Your task to perform on an android device: change keyboard looks Image 0: 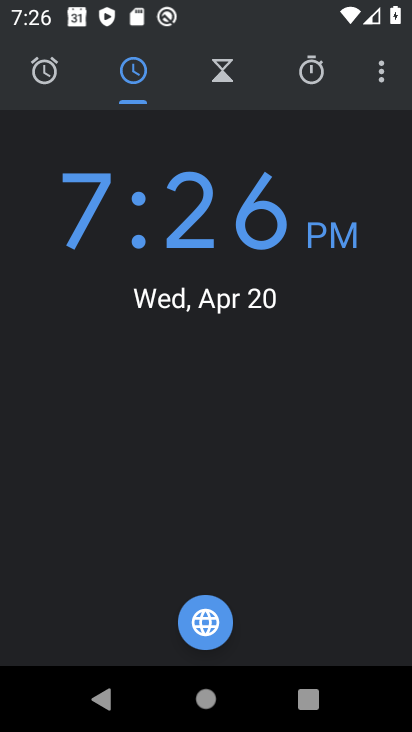
Step 0: press back button
Your task to perform on an android device: change keyboard looks Image 1: 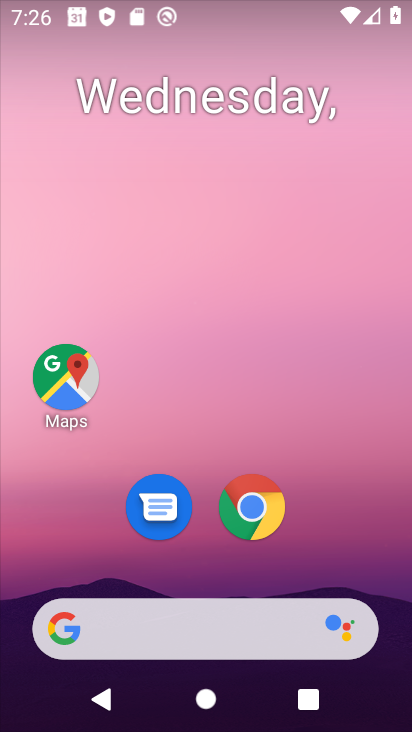
Step 1: drag from (305, 642) to (232, 189)
Your task to perform on an android device: change keyboard looks Image 2: 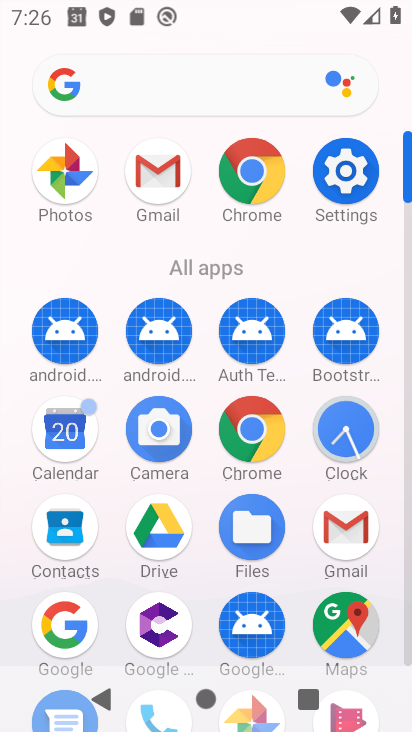
Step 2: click (346, 152)
Your task to perform on an android device: change keyboard looks Image 3: 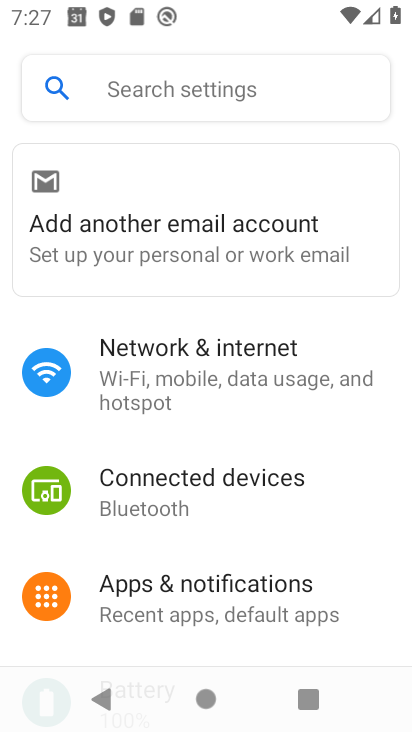
Step 3: click (131, 84)
Your task to perform on an android device: change keyboard looks Image 4: 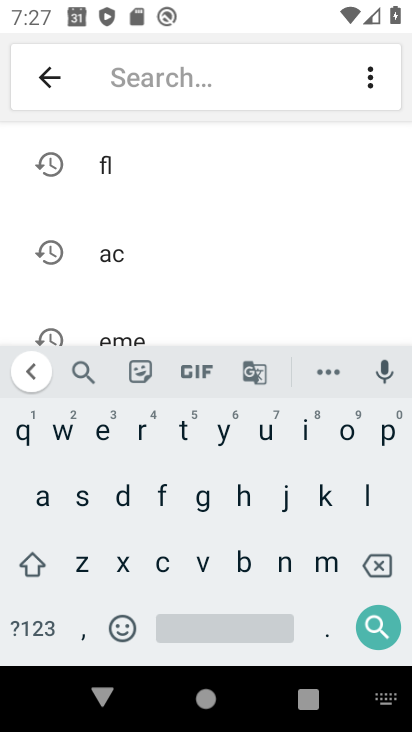
Step 4: click (327, 499)
Your task to perform on an android device: change keyboard looks Image 5: 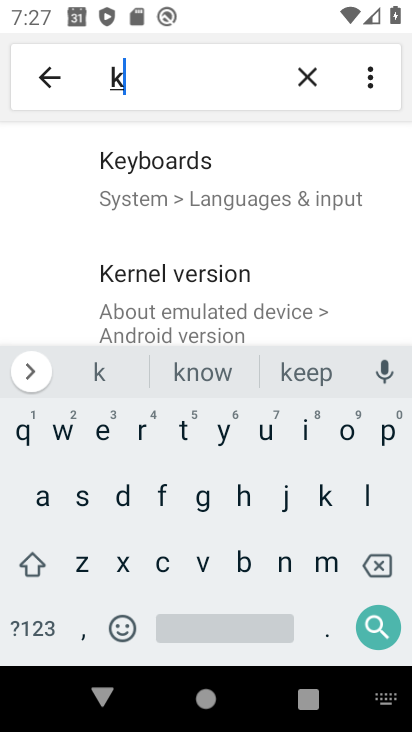
Step 5: click (237, 199)
Your task to perform on an android device: change keyboard looks Image 6: 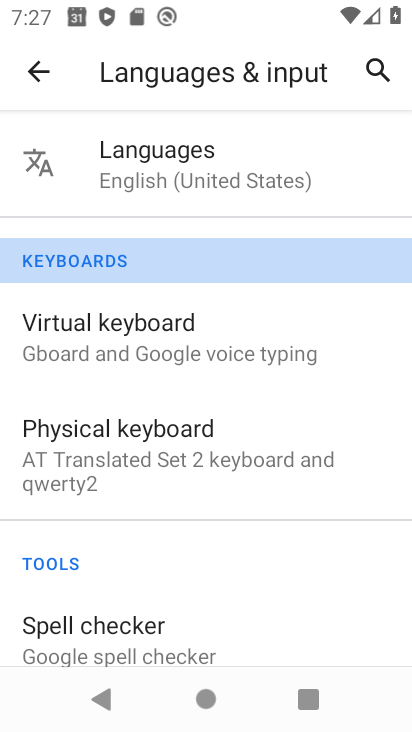
Step 6: click (110, 331)
Your task to perform on an android device: change keyboard looks Image 7: 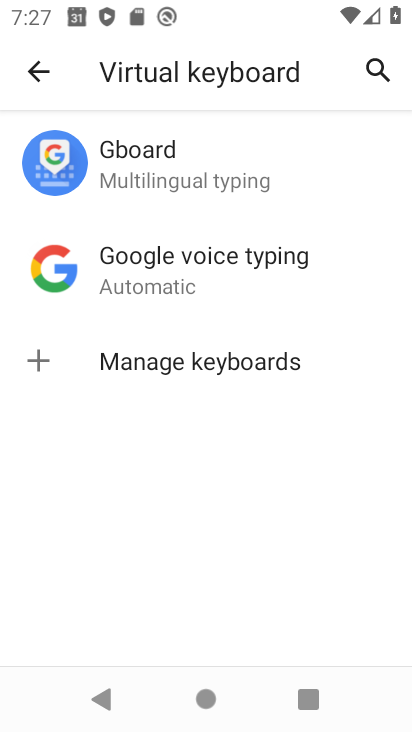
Step 7: click (145, 189)
Your task to perform on an android device: change keyboard looks Image 8: 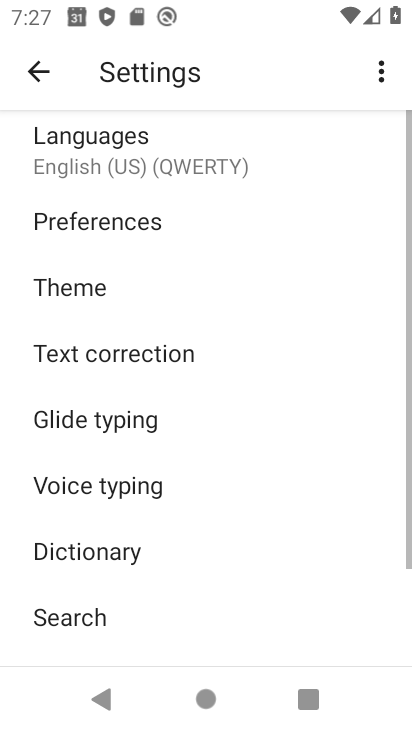
Step 8: click (112, 288)
Your task to perform on an android device: change keyboard looks Image 9: 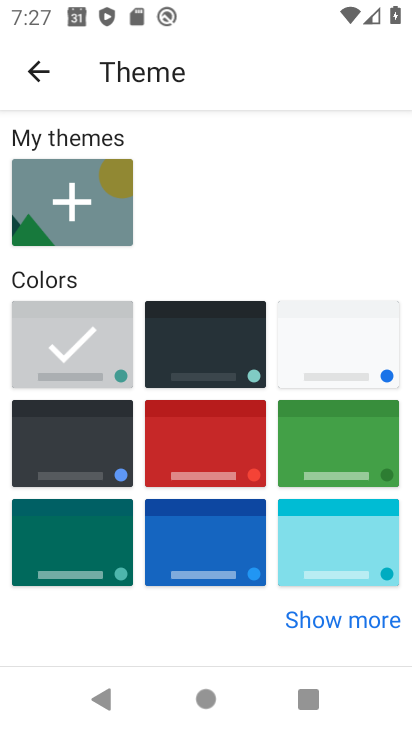
Step 9: click (167, 536)
Your task to perform on an android device: change keyboard looks Image 10: 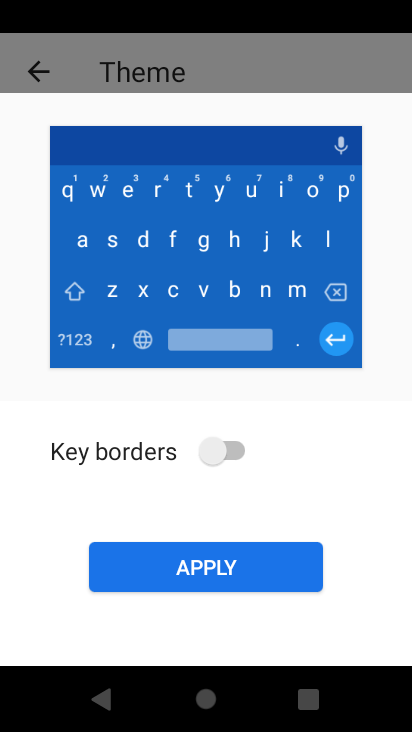
Step 10: click (231, 440)
Your task to perform on an android device: change keyboard looks Image 11: 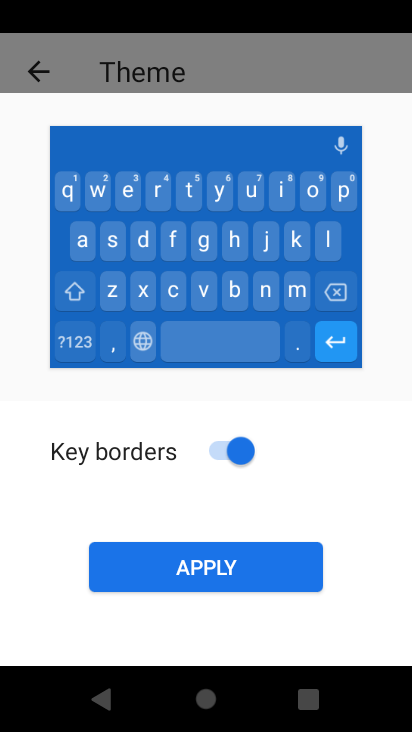
Step 11: click (219, 565)
Your task to perform on an android device: change keyboard looks Image 12: 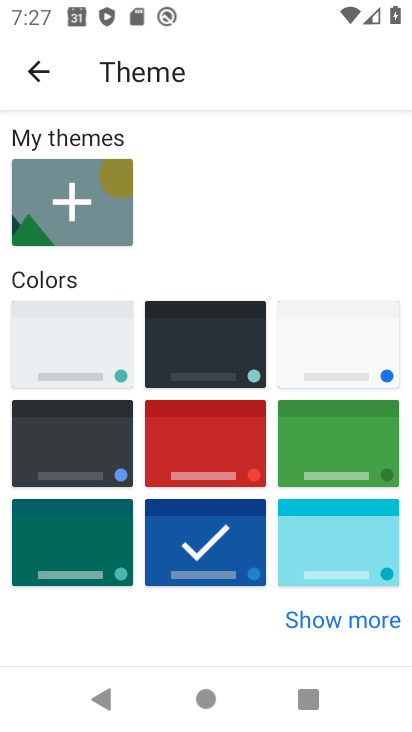
Step 12: task complete